Your task to perform on an android device: toggle javascript in the chrome app Image 0: 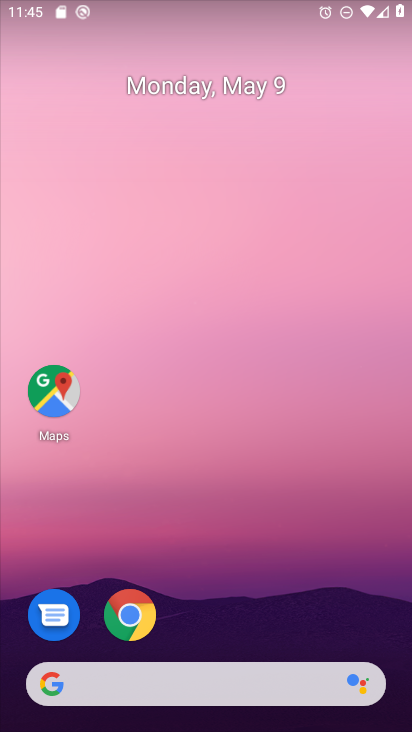
Step 0: drag from (282, 711) to (316, 136)
Your task to perform on an android device: toggle javascript in the chrome app Image 1: 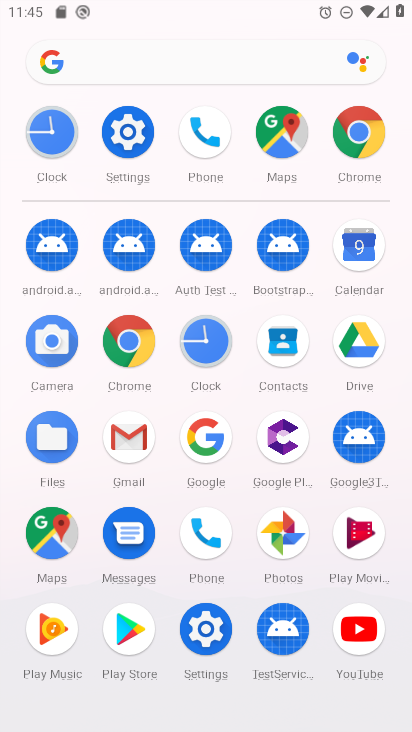
Step 1: click (346, 154)
Your task to perform on an android device: toggle javascript in the chrome app Image 2: 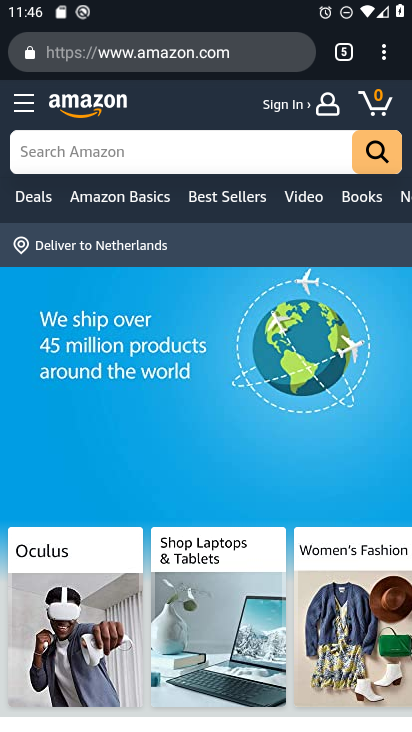
Step 2: click (389, 53)
Your task to perform on an android device: toggle javascript in the chrome app Image 3: 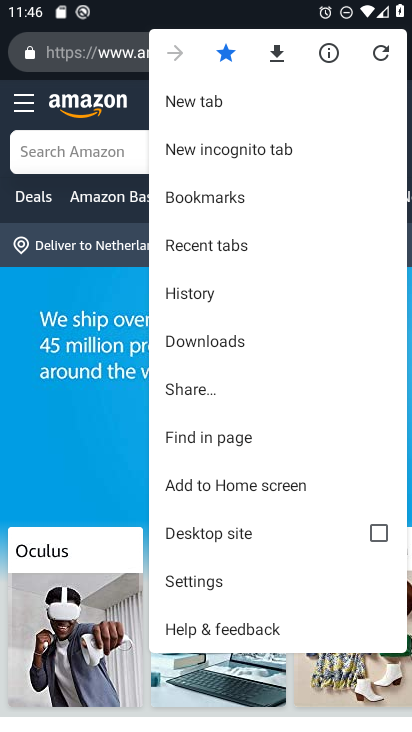
Step 3: click (209, 577)
Your task to perform on an android device: toggle javascript in the chrome app Image 4: 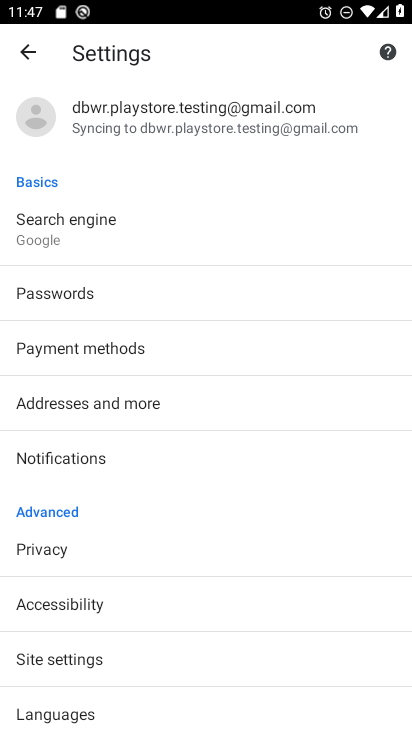
Step 4: click (101, 654)
Your task to perform on an android device: toggle javascript in the chrome app Image 5: 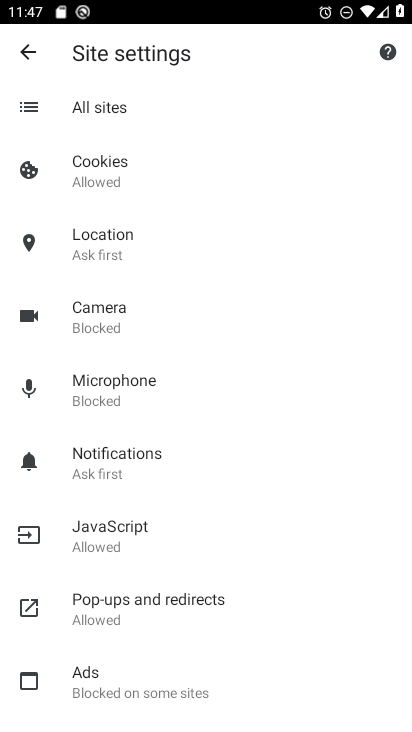
Step 5: click (157, 542)
Your task to perform on an android device: toggle javascript in the chrome app Image 6: 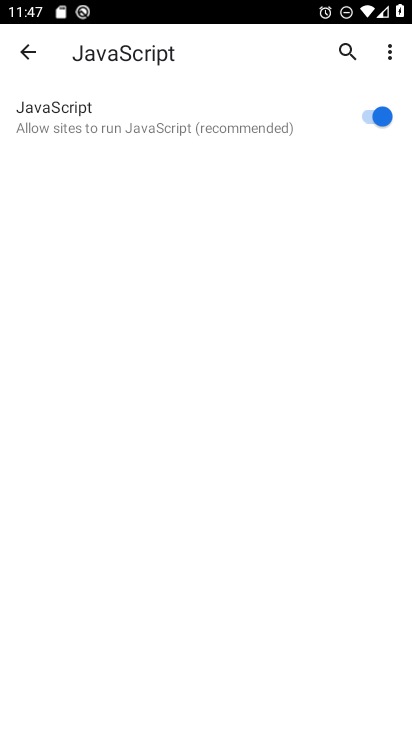
Step 6: task complete